Your task to perform on an android device: toggle notifications settings in the gmail app Image 0: 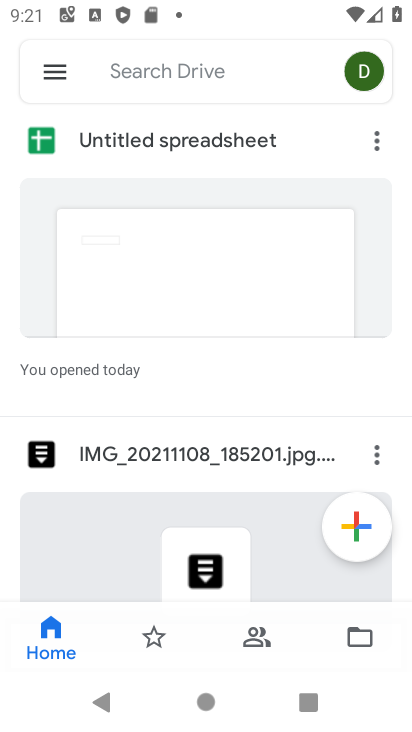
Step 0: press home button
Your task to perform on an android device: toggle notifications settings in the gmail app Image 1: 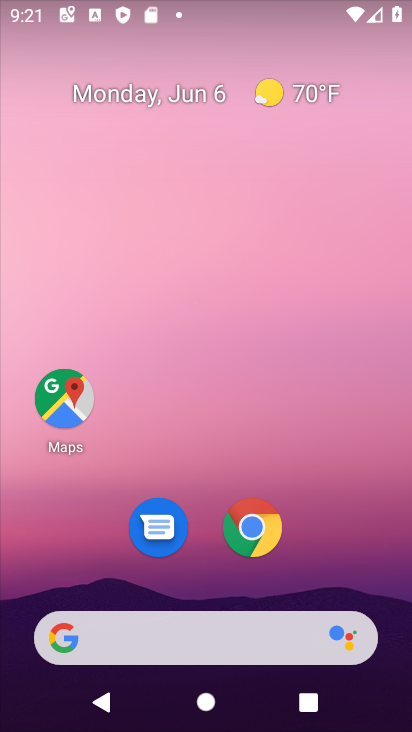
Step 1: drag from (267, 506) to (291, 326)
Your task to perform on an android device: toggle notifications settings in the gmail app Image 2: 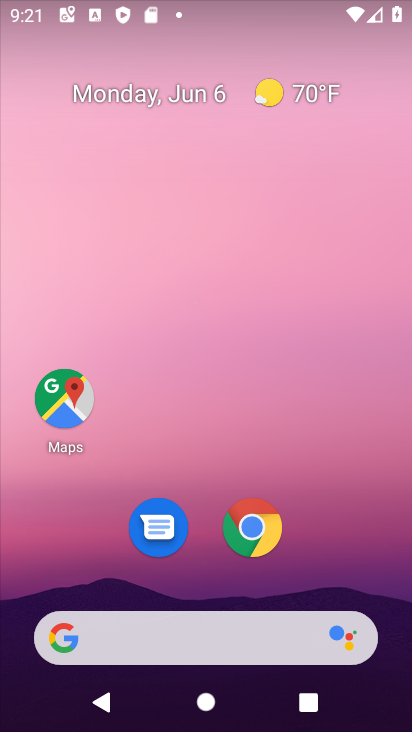
Step 2: drag from (237, 631) to (296, 138)
Your task to perform on an android device: toggle notifications settings in the gmail app Image 3: 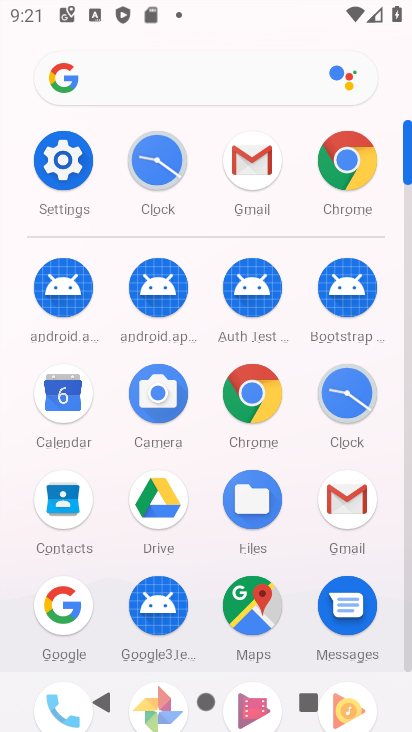
Step 3: click (337, 506)
Your task to perform on an android device: toggle notifications settings in the gmail app Image 4: 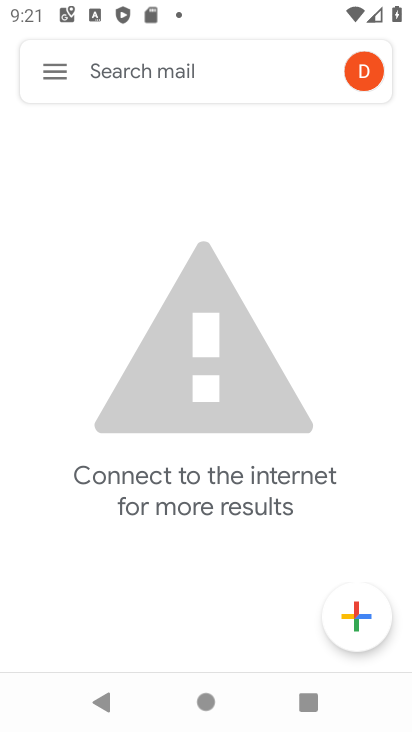
Step 4: click (68, 55)
Your task to perform on an android device: toggle notifications settings in the gmail app Image 5: 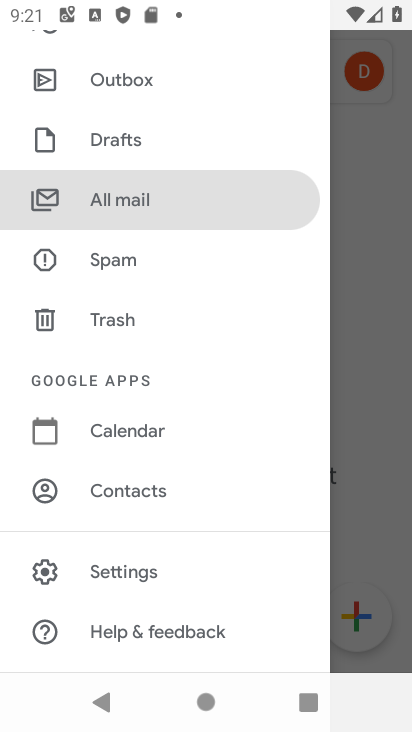
Step 5: click (121, 566)
Your task to perform on an android device: toggle notifications settings in the gmail app Image 6: 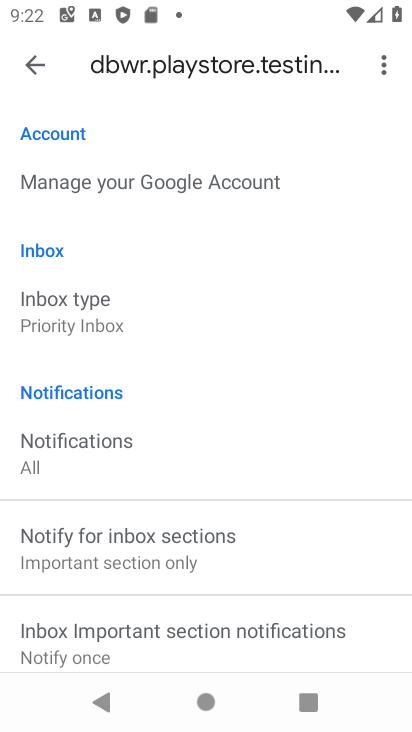
Step 6: click (40, 63)
Your task to perform on an android device: toggle notifications settings in the gmail app Image 7: 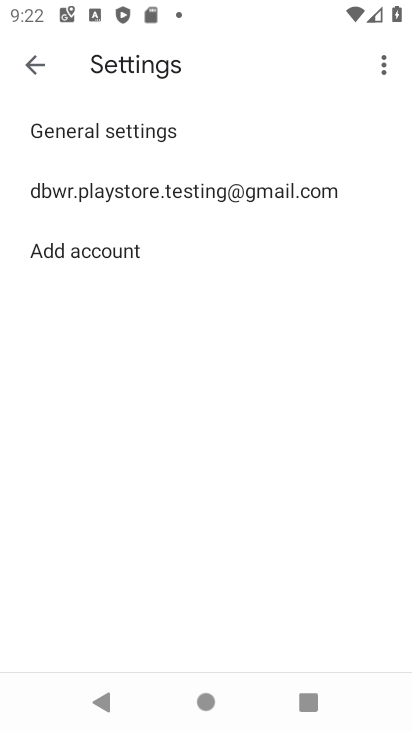
Step 7: click (173, 133)
Your task to perform on an android device: toggle notifications settings in the gmail app Image 8: 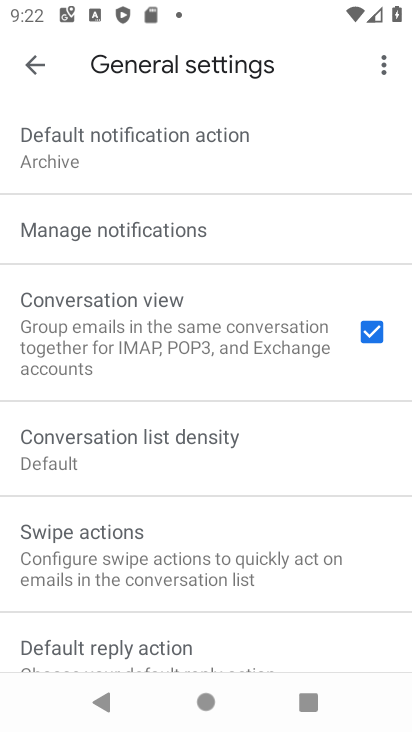
Step 8: click (181, 226)
Your task to perform on an android device: toggle notifications settings in the gmail app Image 9: 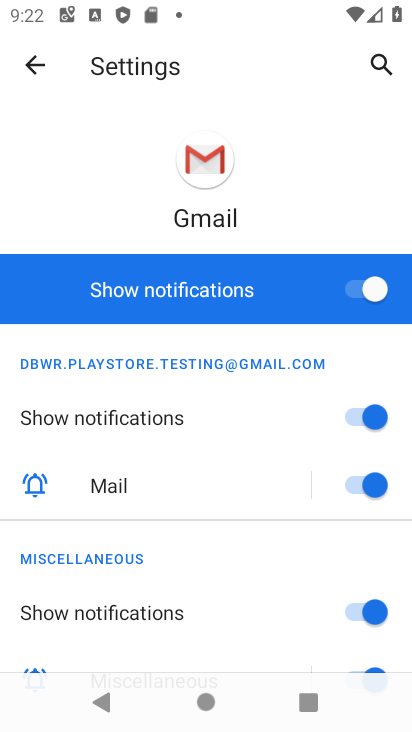
Step 9: click (356, 312)
Your task to perform on an android device: toggle notifications settings in the gmail app Image 10: 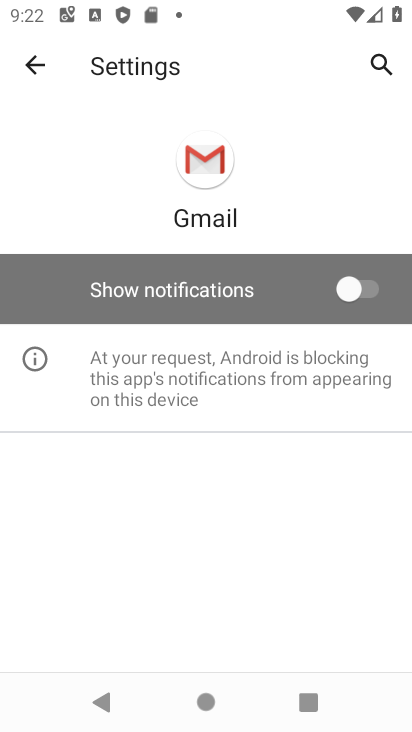
Step 10: task complete